Your task to perform on an android device: Open location settings Image 0: 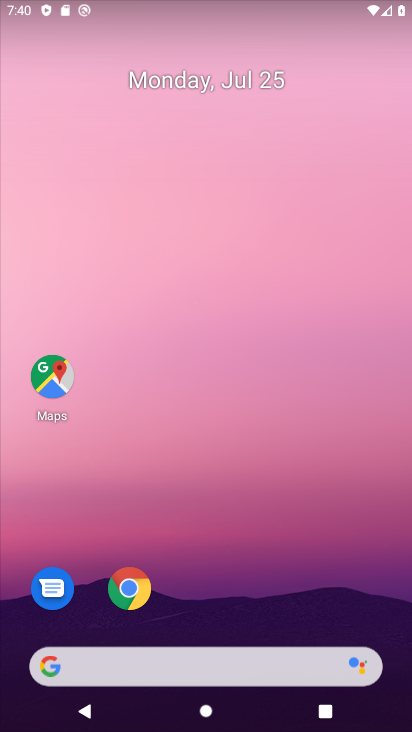
Step 0: drag from (164, 643) to (171, 171)
Your task to perform on an android device: Open location settings Image 1: 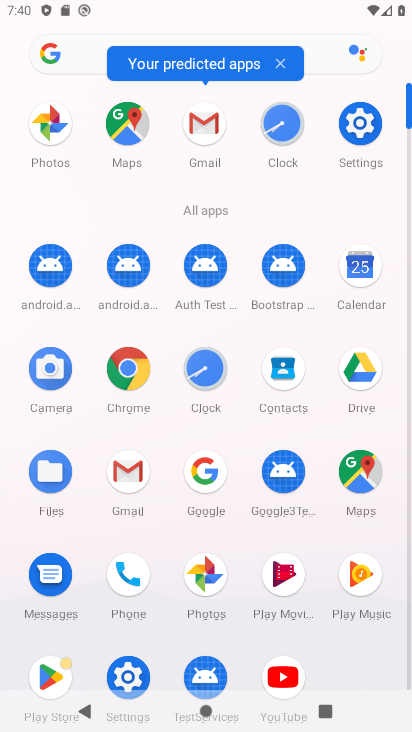
Step 1: click (367, 117)
Your task to perform on an android device: Open location settings Image 2: 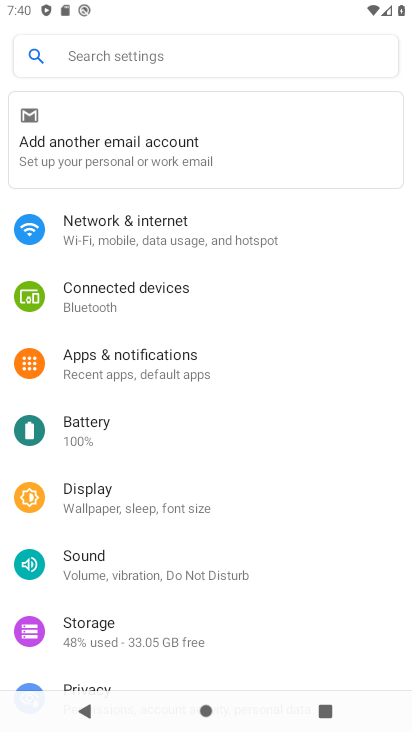
Step 2: drag from (128, 659) to (153, 260)
Your task to perform on an android device: Open location settings Image 3: 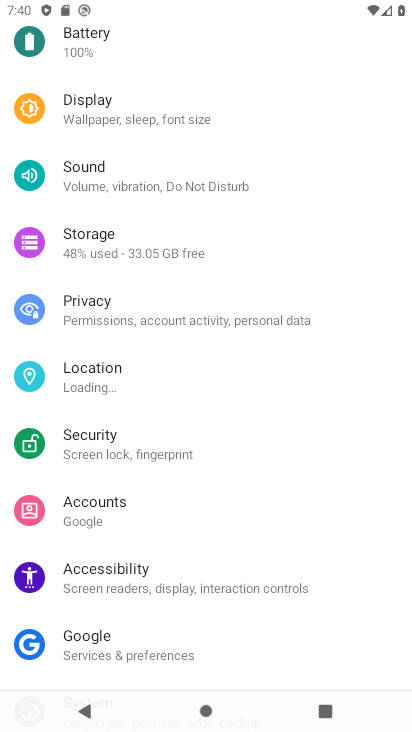
Step 3: click (95, 379)
Your task to perform on an android device: Open location settings Image 4: 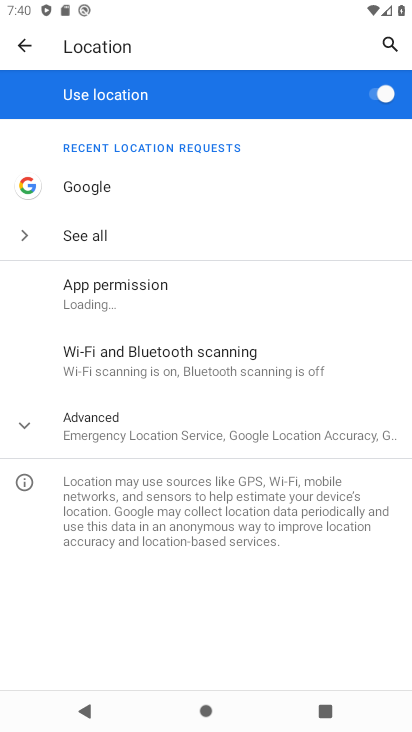
Step 4: click (133, 423)
Your task to perform on an android device: Open location settings Image 5: 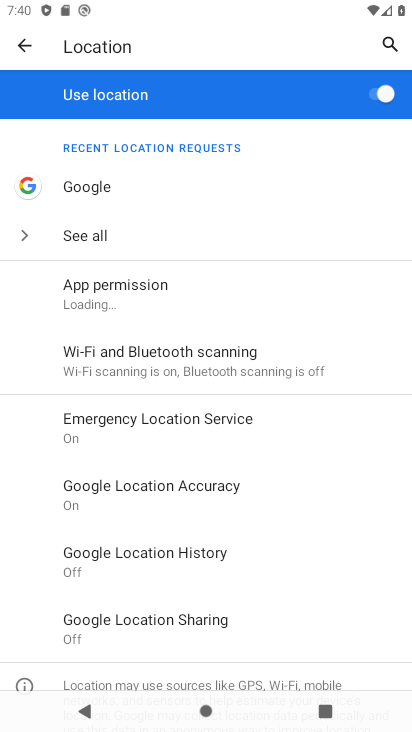
Step 5: task complete